Your task to perform on an android device: Search for "razer blade" on costco, select the first entry, and add it to the cart. Image 0: 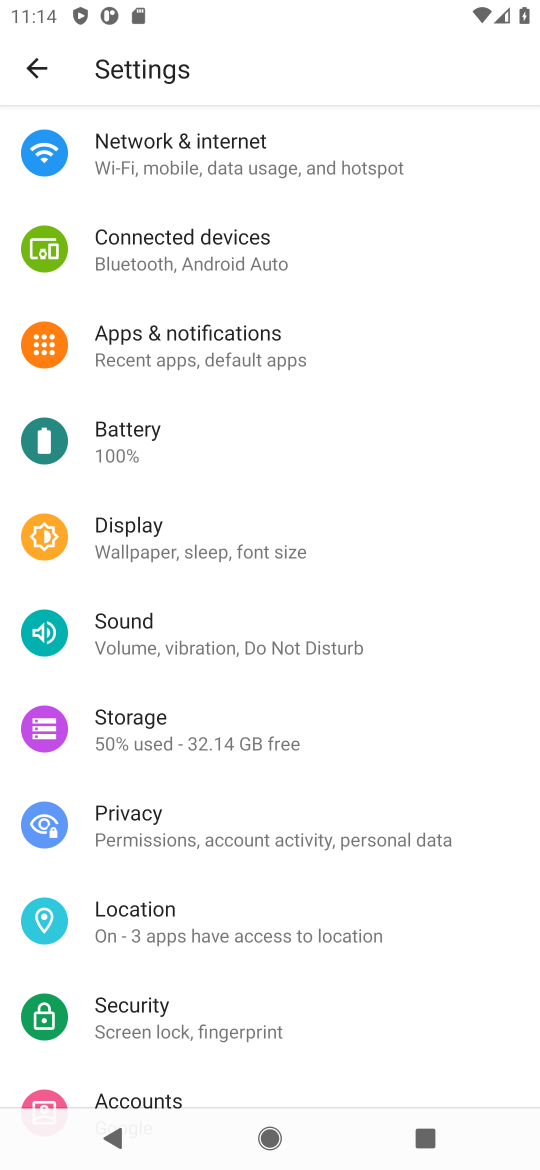
Step 0: press home button
Your task to perform on an android device: Search for "razer blade" on costco, select the first entry, and add it to the cart. Image 1: 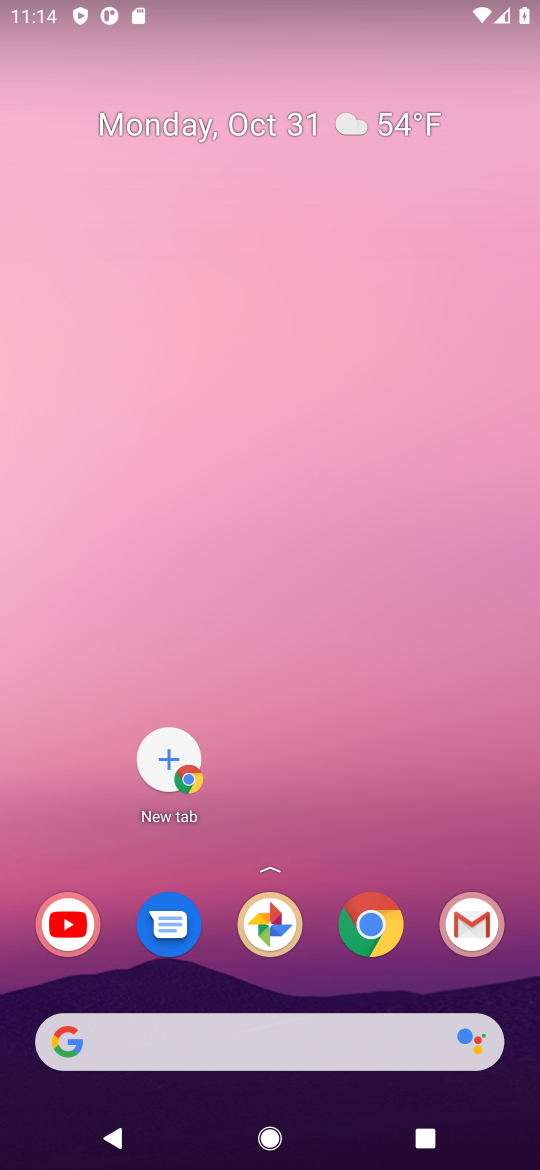
Step 1: click (352, 942)
Your task to perform on an android device: Search for "razer blade" on costco, select the first entry, and add it to the cart. Image 2: 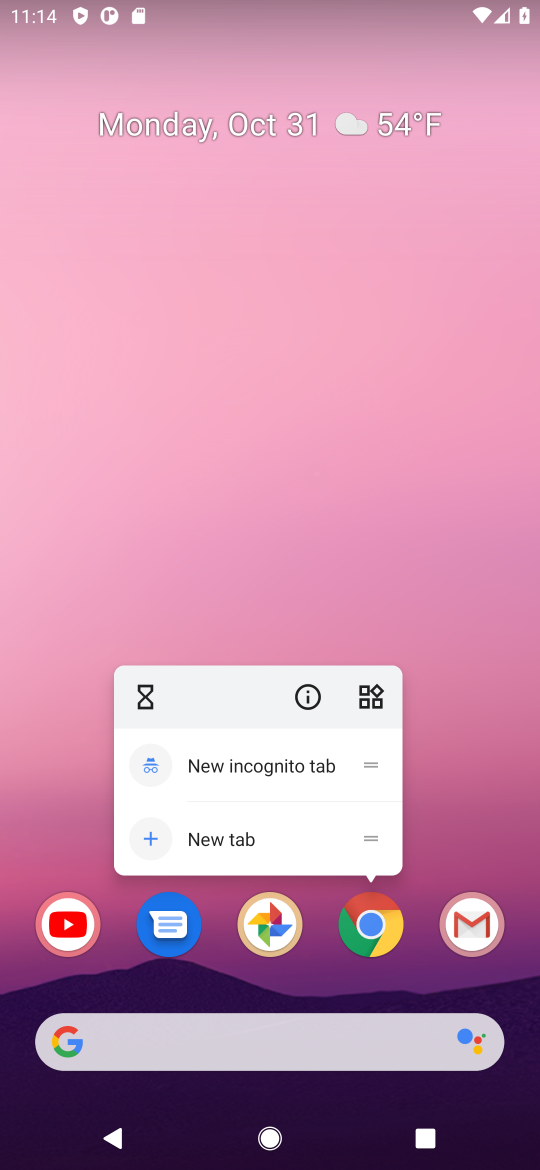
Step 2: click (369, 942)
Your task to perform on an android device: Search for "razer blade" on costco, select the first entry, and add it to the cart. Image 3: 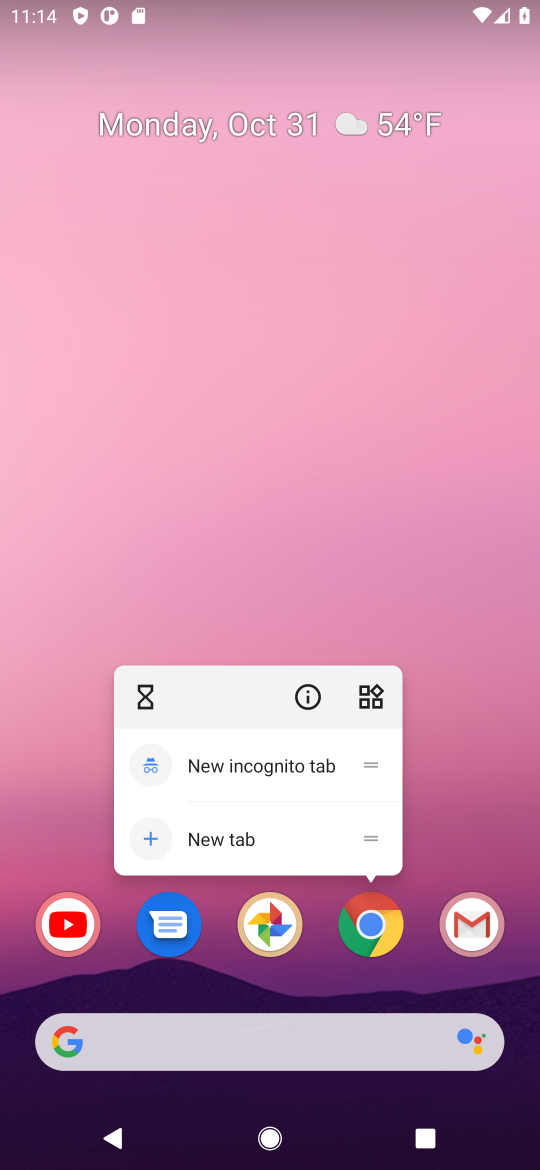
Step 3: click (369, 942)
Your task to perform on an android device: Search for "razer blade" on costco, select the first entry, and add it to the cart. Image 4: 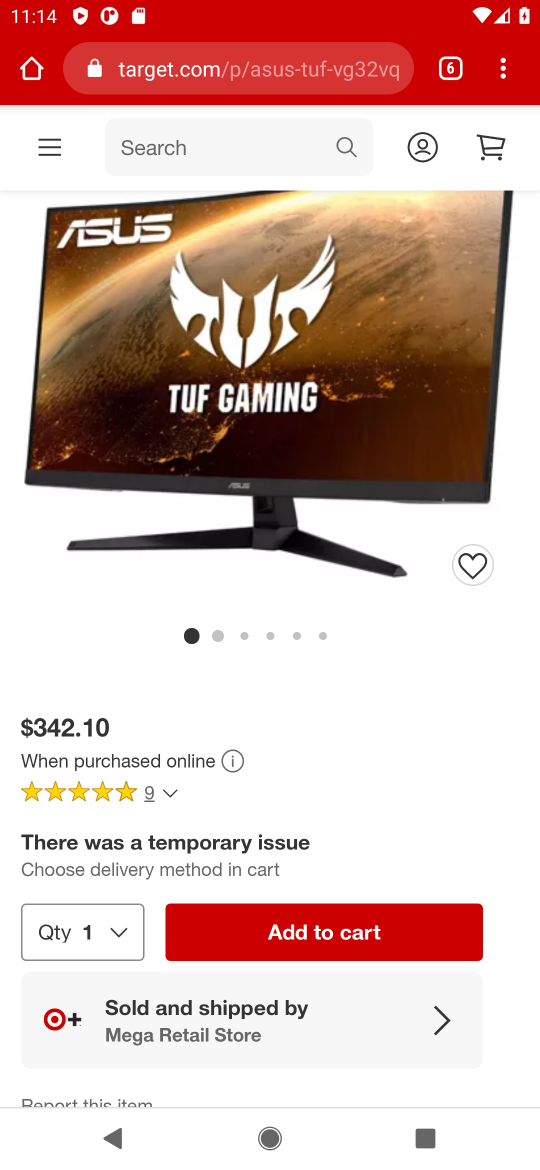
Step 4: click (273, 59)
Your task to perform on an android device: Search for "razer blade" on costco, select the first entry, and add it to the cart. Image 5: 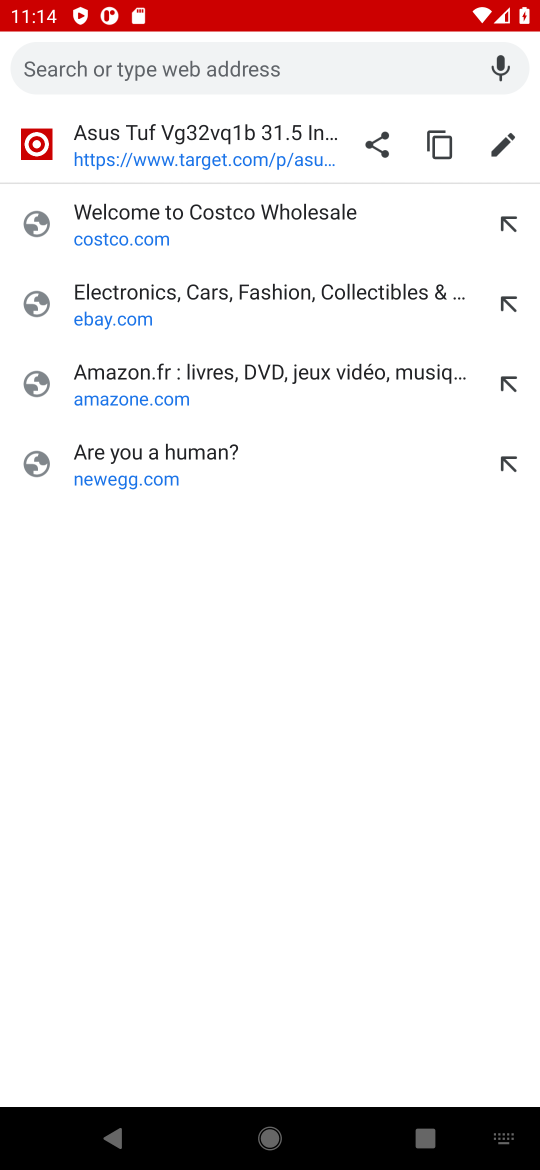
Step 5: type "costco"
Your task to perform on an android device: Search for "razer blade" on costco, select the first entry, and add it to the cart. Image 6: 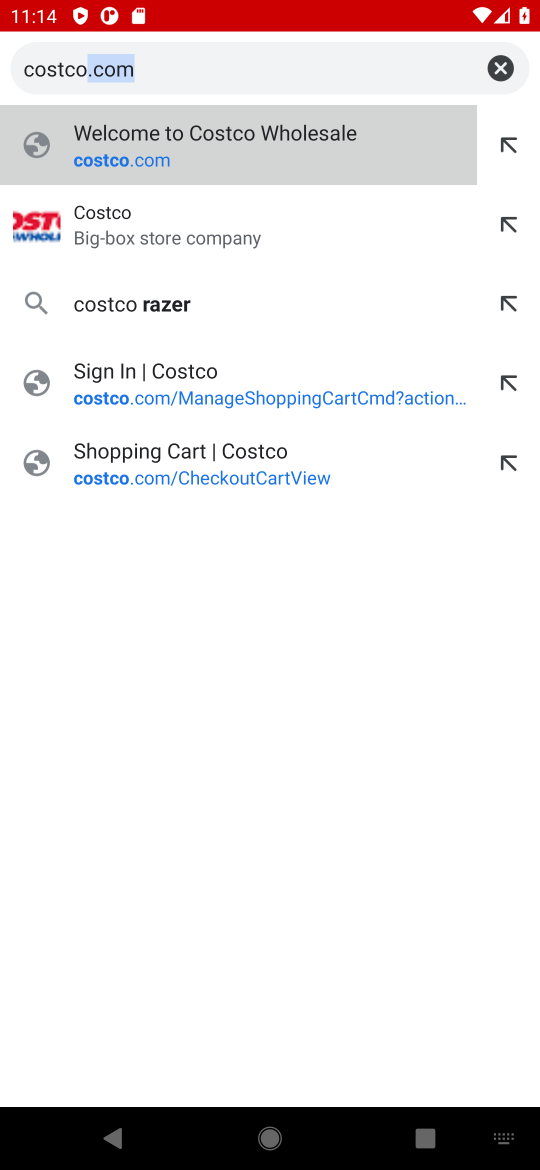
Step 6: type ""
Your task to perform on an android device: Search for "razer blade" on costco, select the first entry, and add it to the cart. Image 7: 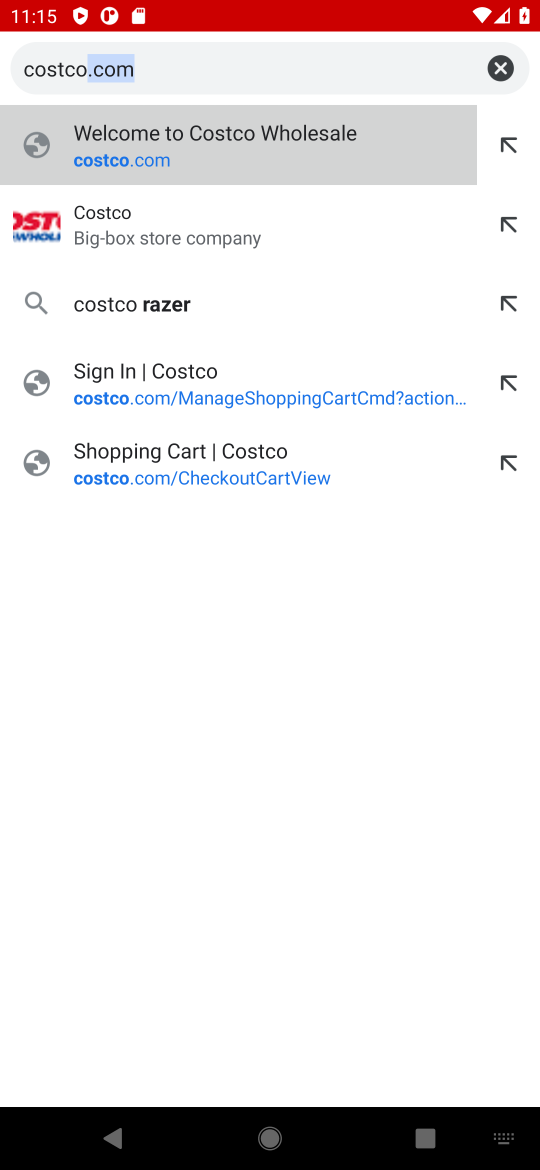
Step 7: click (186, 217)
Your task to perform on an android device: Search for "razer blade" on costco, select the first entry, and add it to the cart. Image 8: 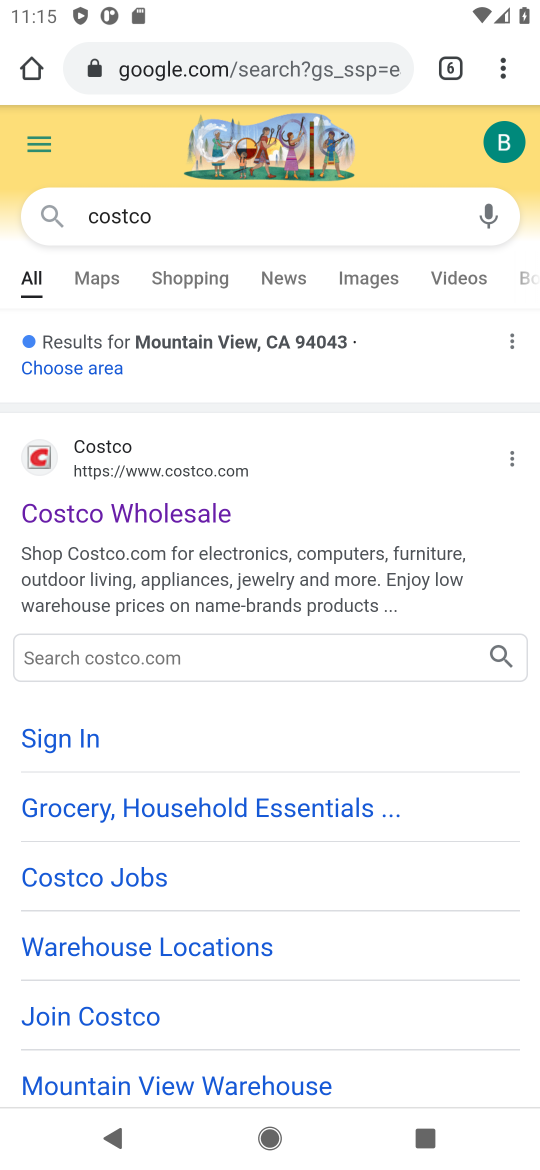
Step 8: click (27, 514)
Your task to perform on an android device: Search for "razer blade" on costco, select the first entry, and add it to the cart. Image 9: 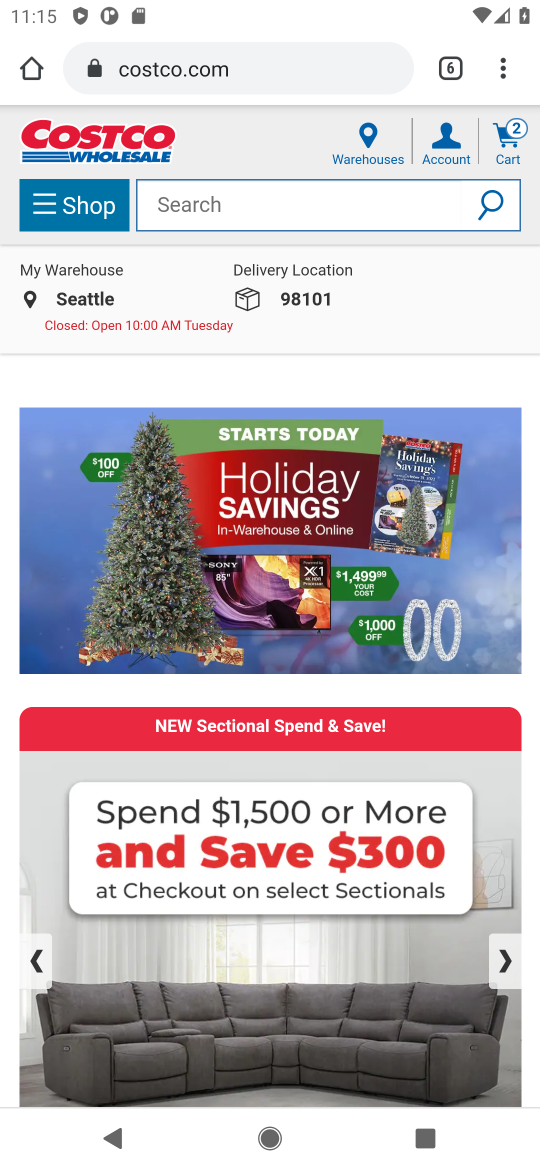
Step 9: click (220, 212)
Your task to perform on an android device: Search for "razer blade" on costco, select the first entry, and add it to the cart. Image 10: 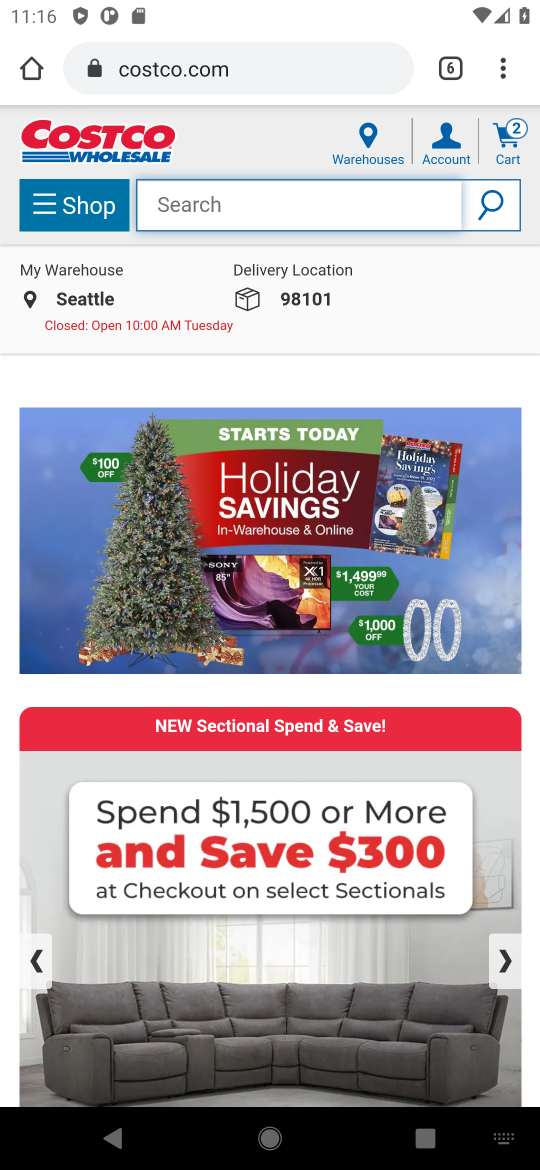
Step 10: type "razer blade"
Your task to perform on an android device: Search for "razer blade" on costco, select the first entry, and add it to the cart. Image 11: 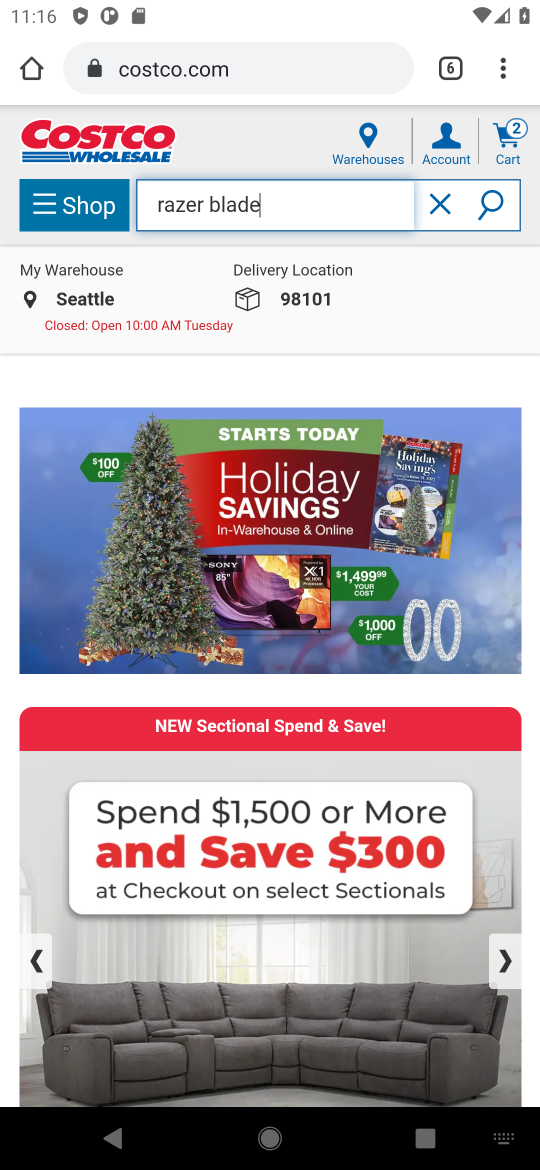
Step 11: type ""
Your task to perform on an android device: Search for "razer blade" on costco, select the first entry, and add it to the cart. Image 12: 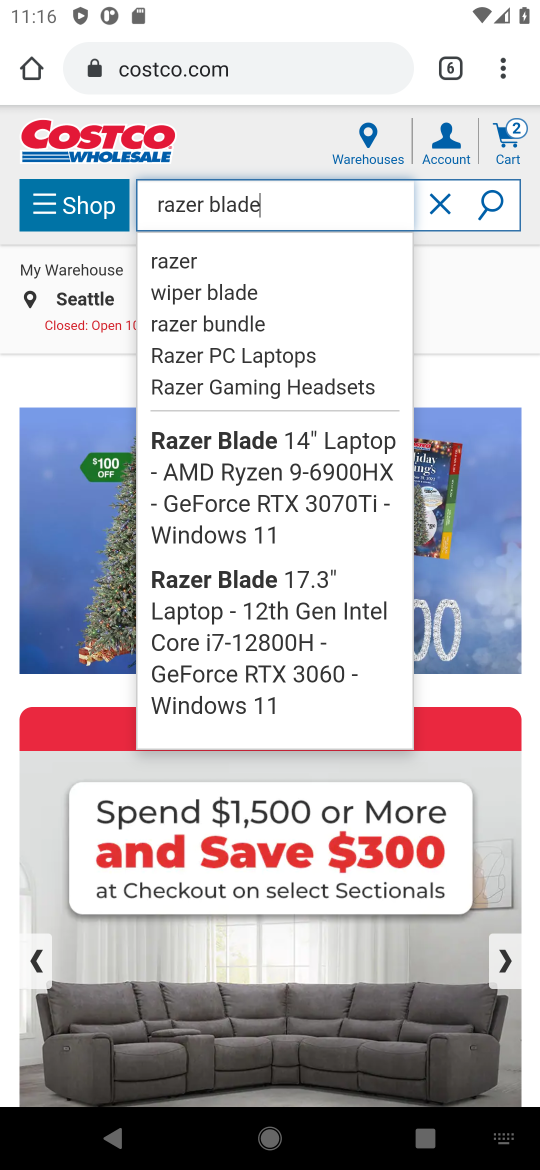
Step 12: click (174, 324)
Your task to perform on an android device: Search for "razer blade" on costco, select the first entry, and add it to the cart. Image 13: 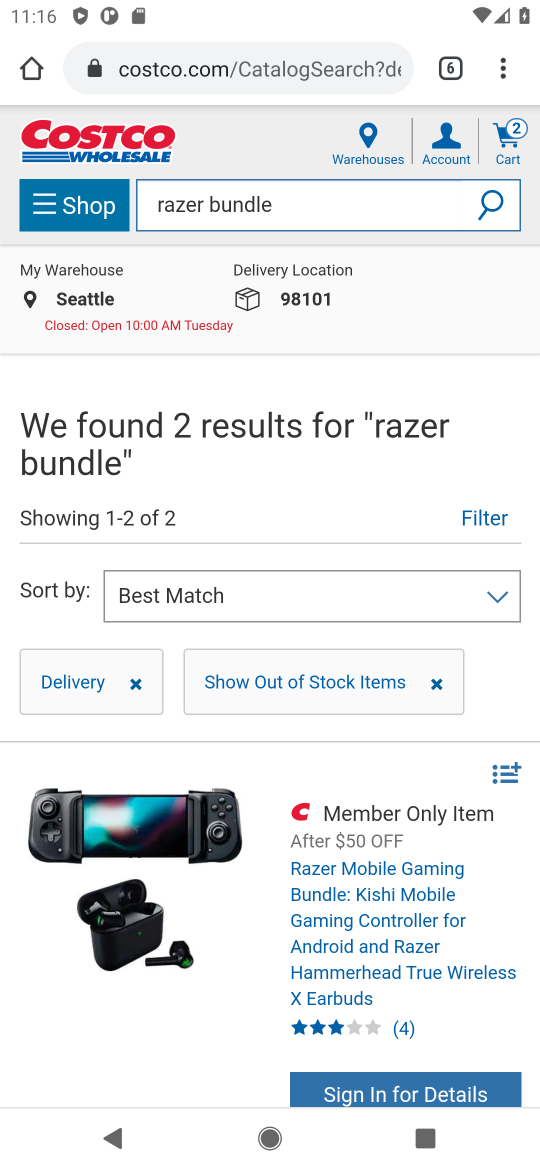
Step 13: drag from (124, 910) to (144, 93)
Your task to perform on an android device: Search for "razer blade" on costco, select the first entry, and add it to the cart. Image 14: 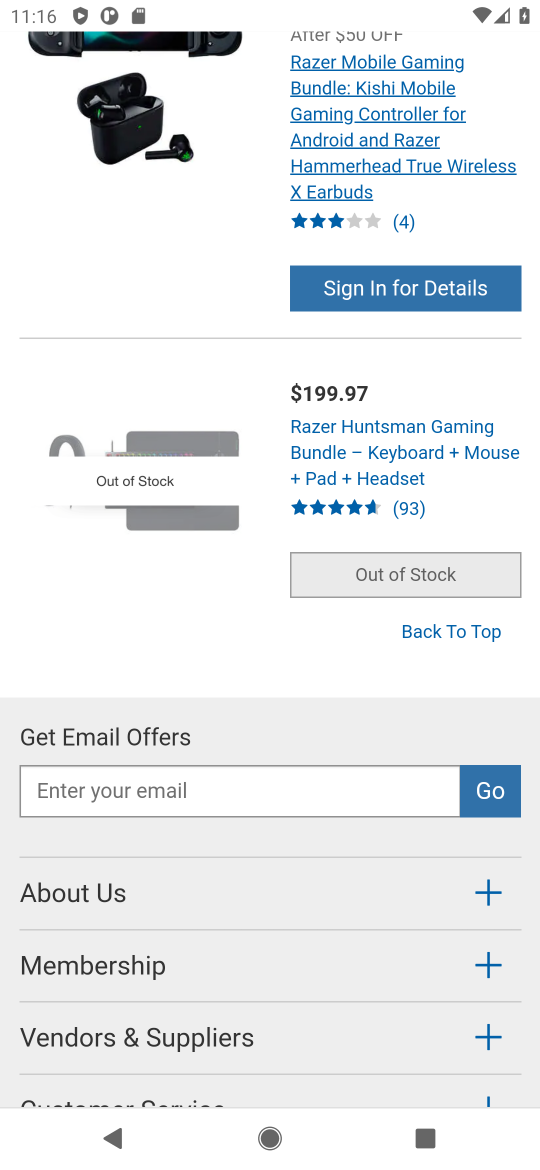
Step 14: click (69, 123)
Your task to perform on an android device: Search for "razer blade" on costco, select the first entry, and add it to the cart. Image 15: 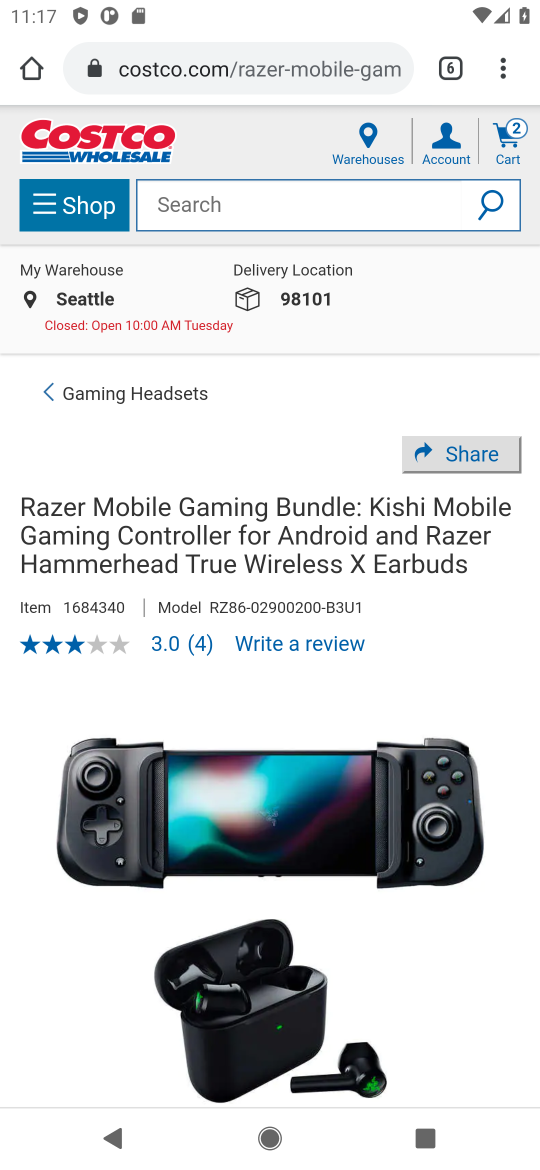
Step 15: drag from (69, 907) to (184, 325)
Your task to perform on an android device: Search for "razer blade" on costco, select the first entry, and add it to the cart. Image 16: 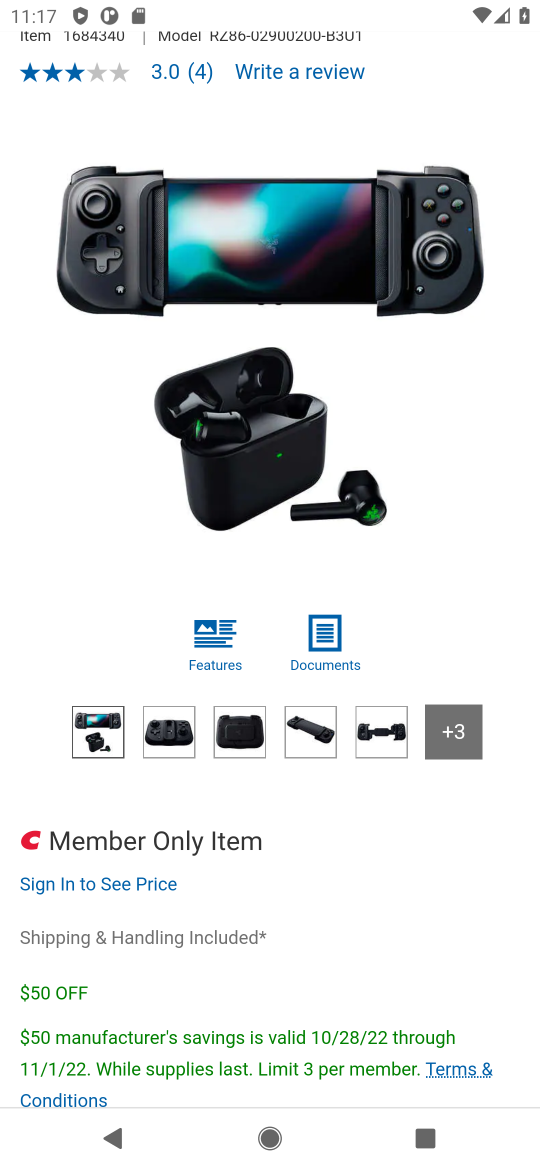
Step 16: drag from (203, 925) to (262, 241)
Your task to perform on an android device: Search for "razer blade" on costco, select the first entry, and add it to the cart. Image 17: 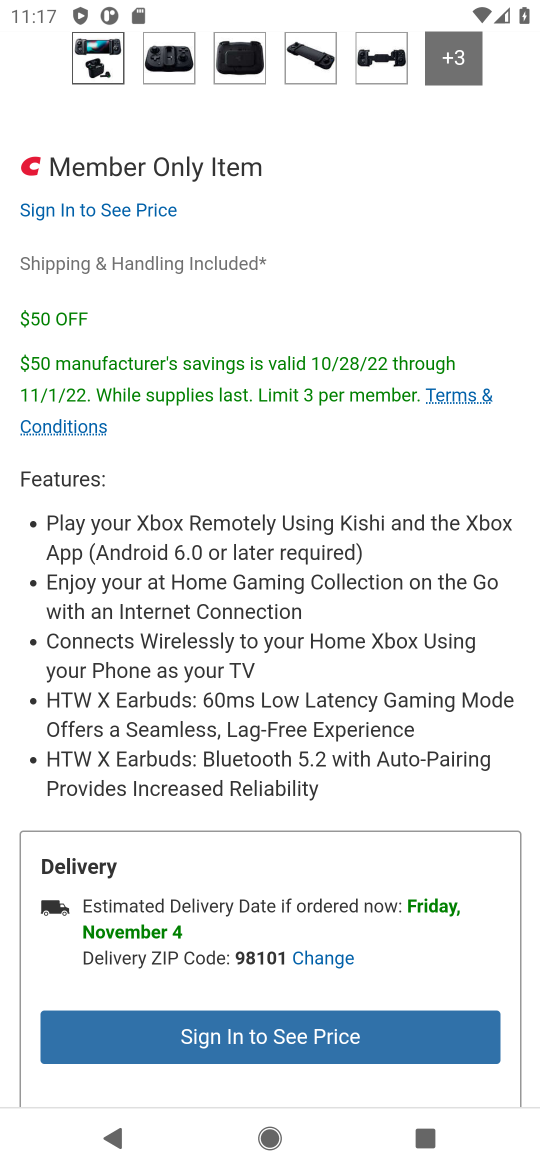
Step 17: drag from (160, 694) to (257, 0)
Your task to perform on an android device: Search for "razer blade" on costco, select the first entry, and add it to the cart. Image 18: 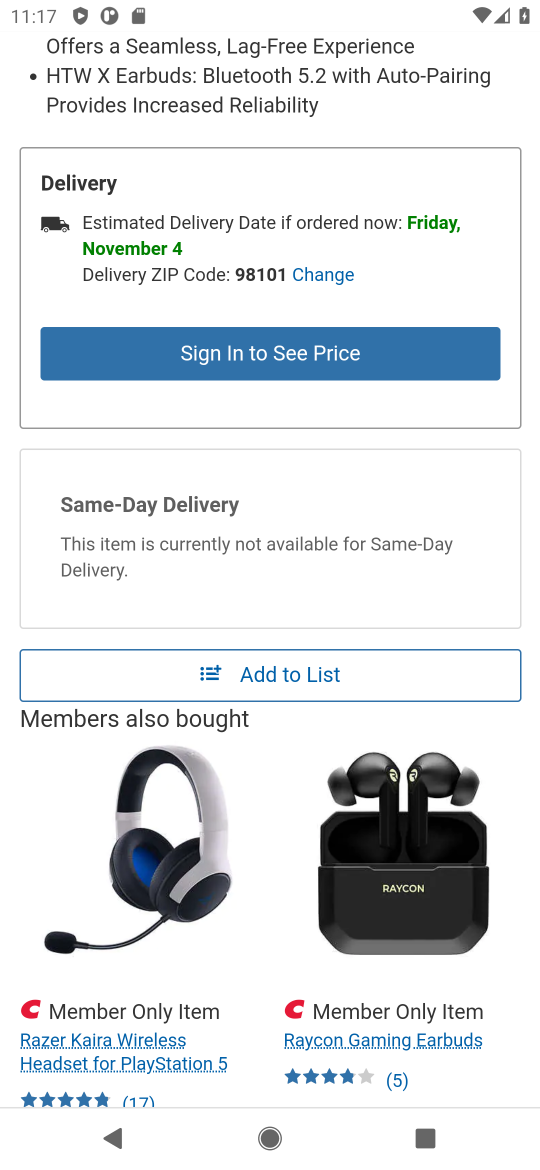
Step 18: click (257, 675)
Your task to perform on an android device: Search for "razer blade" on costco, select the first entry, and add it to the cart. Image 19: 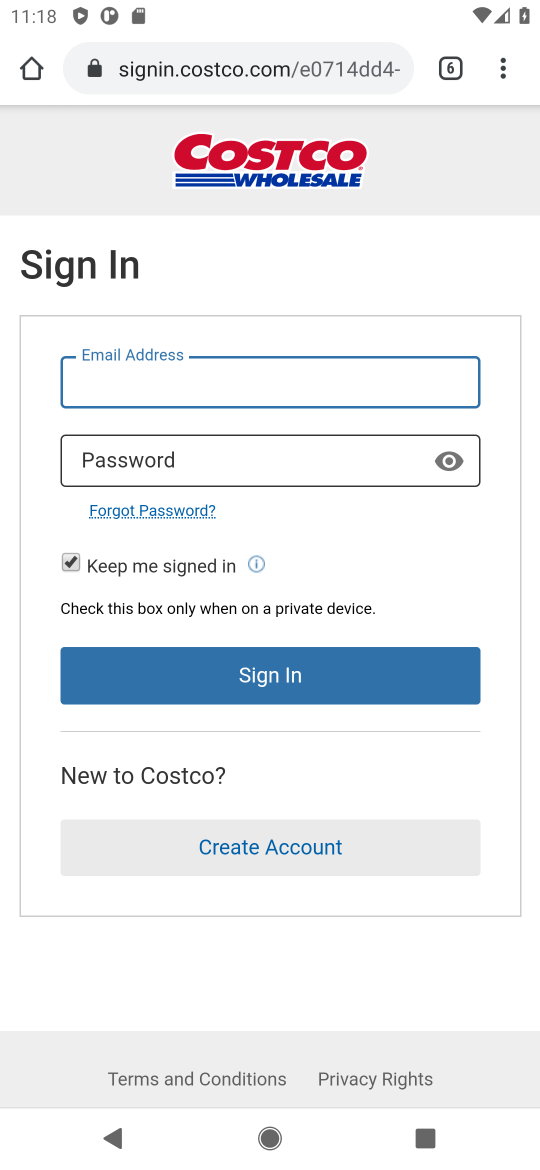
Step 19: task complete